Your task to perform on an android device: Search for Mexican restaurants on Maps Image 0: 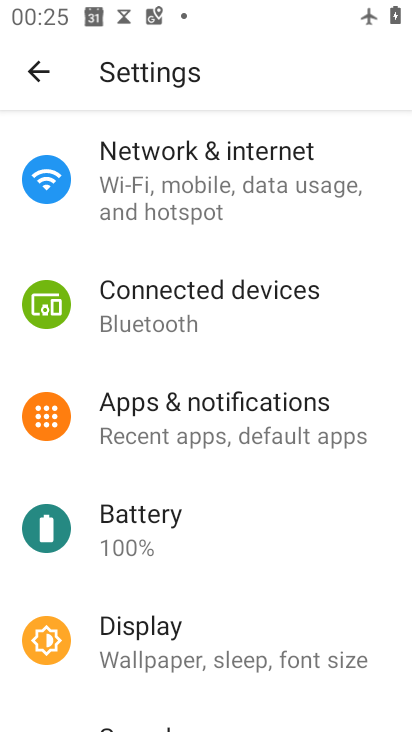
Step 0: press home button
Your task to perform on an android device: Search for Mexican restaurants on Maps Image 1: 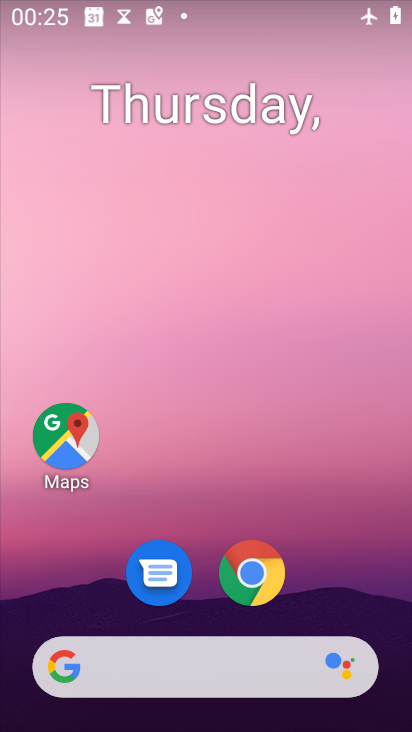
Step 1: click (57, 435)
Your task to perform on an android device: Search for Mexican restaurants on Maps Image 2: 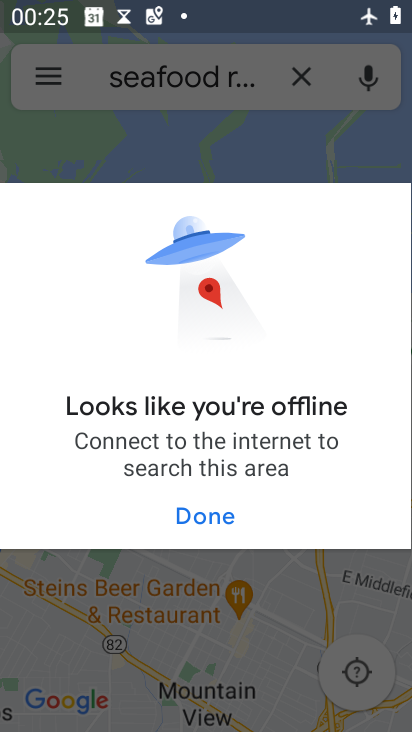
Step 2: click (203, 511)
Your task to perform on an android device: Search for Mexican restaurants on Maps Image 3: 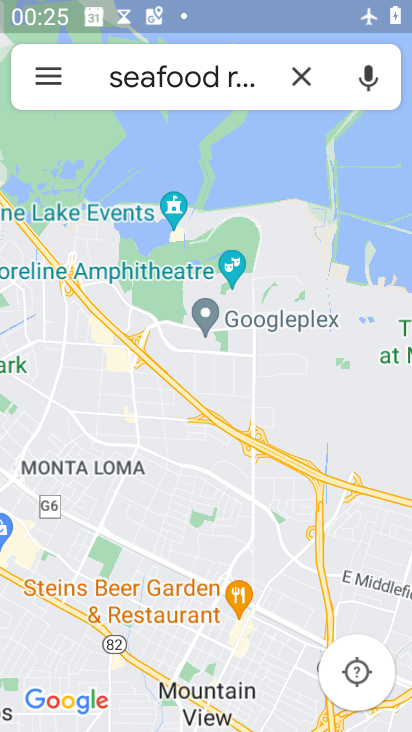
Step 3: click (307, 65)
Your task to perform on an android device: Search for Mexican restaurants on Maps Image 4: 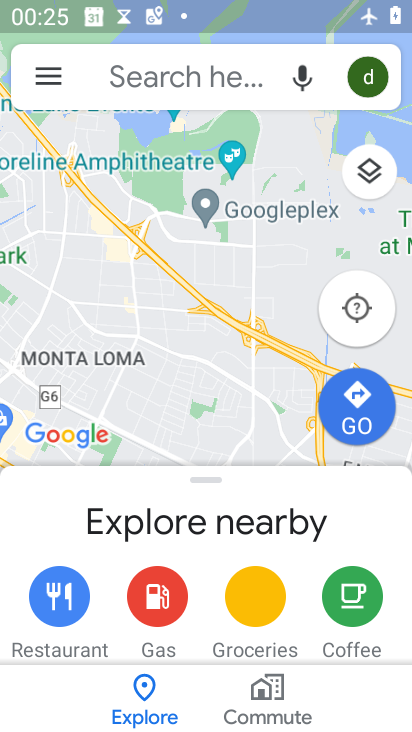
Step 4: click (186, 65)
Your task to perform on an android device: Search for Mexican restaurants on Maps Image 5: 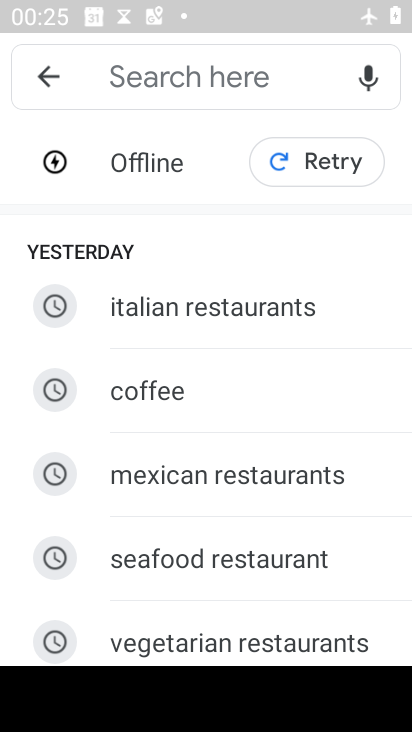
Step 5: click (310, 474)
Your task to perform on an android device: Search for Mexican restaurants on Maps Image 6: 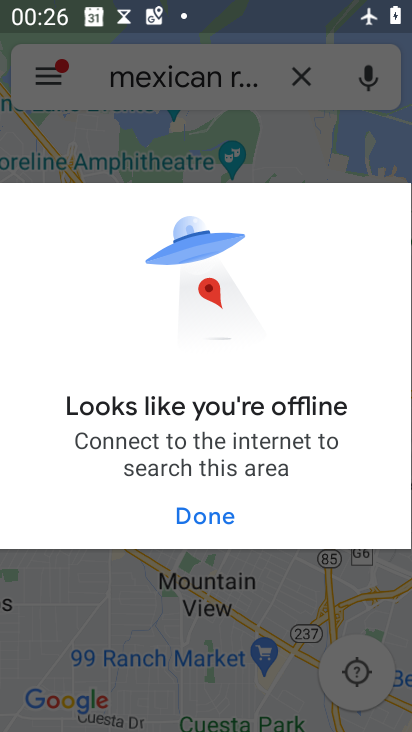
Step 6: click (198, 503)
Your task to perform on an android device: Search for Mexican restaurants on Maps Image 7: 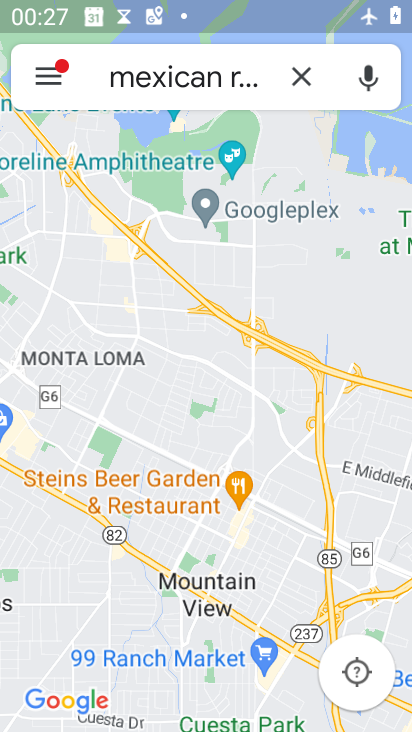
Step 7: task complete